Your task to perform on an android device: Open Youtube and go to the subscriptions tab Image 0: 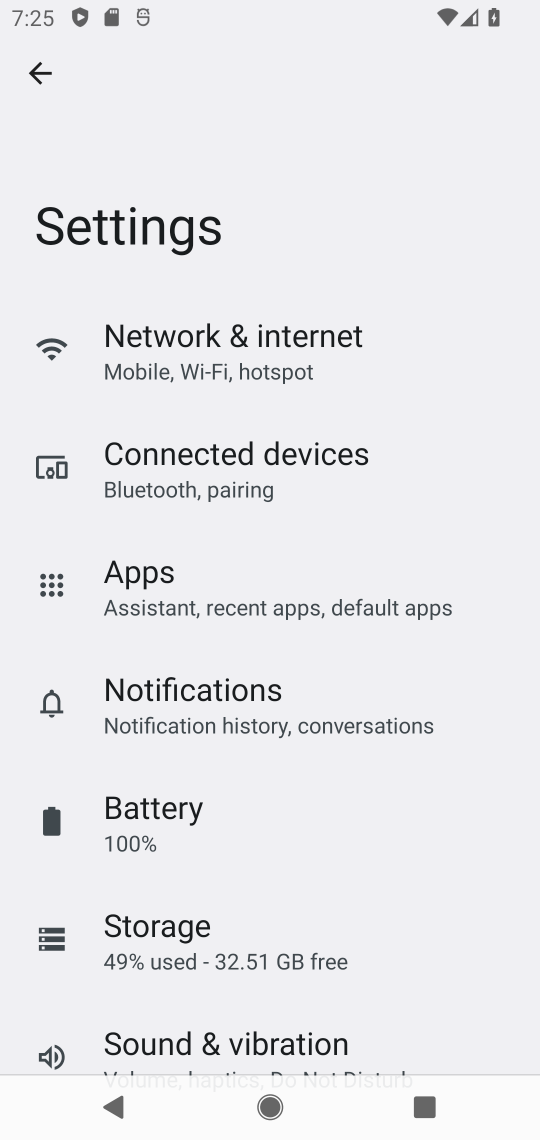
Step 0: press home button
Your task to perform on an android device: Open Youtube and go to the subscriptions tab Image 1: 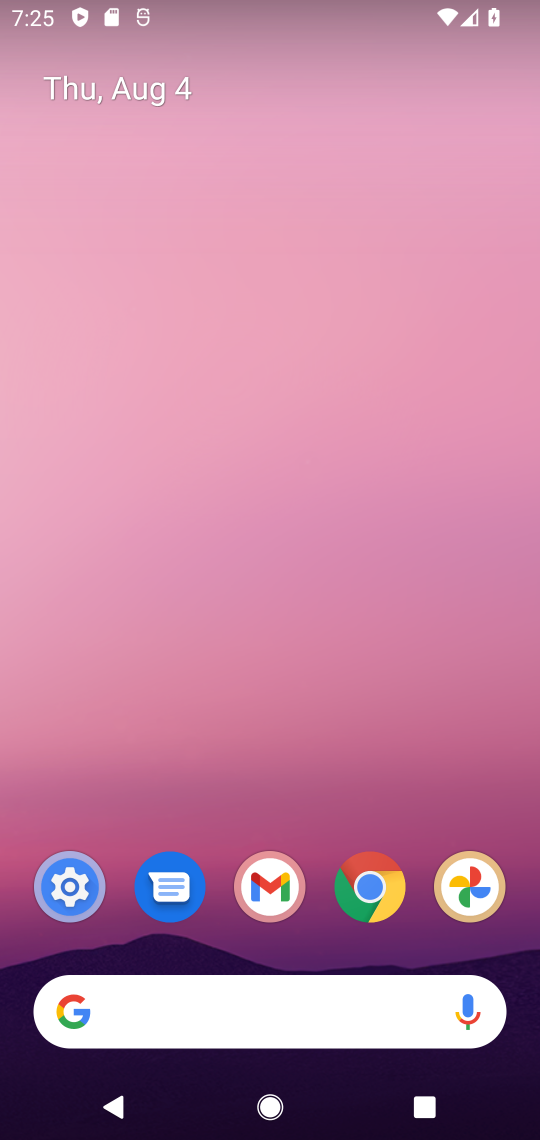
Step 1: drag from (303, 943) to (288, 183)
Your task to perform on an android device: Open Youtube and go to the subscriptions tab Image 2: 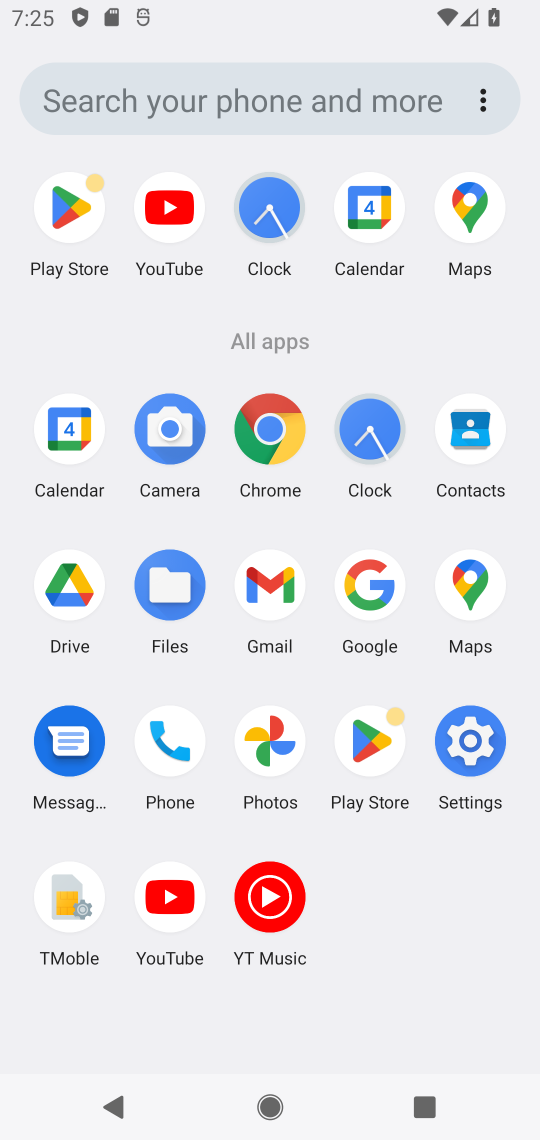
Step 2: click (159, 998)
Your task to perform on an android device: Open Youtube and go to the subscriptions tab Image 3: 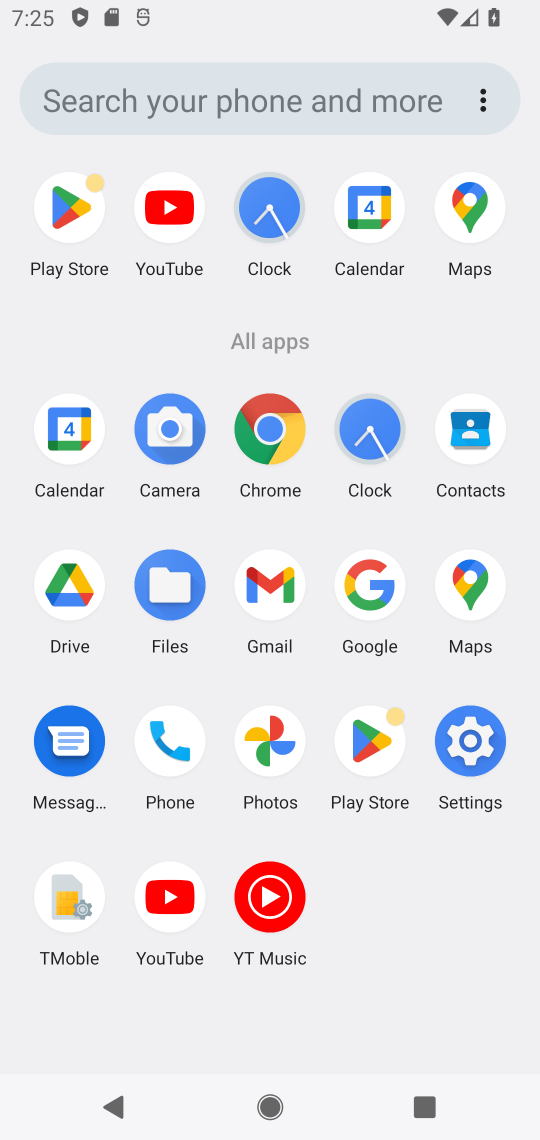
Step 3: click (160, 897)
Your task to perform on an android device: Open Youtube and go to the subscriptions tab Image 4: 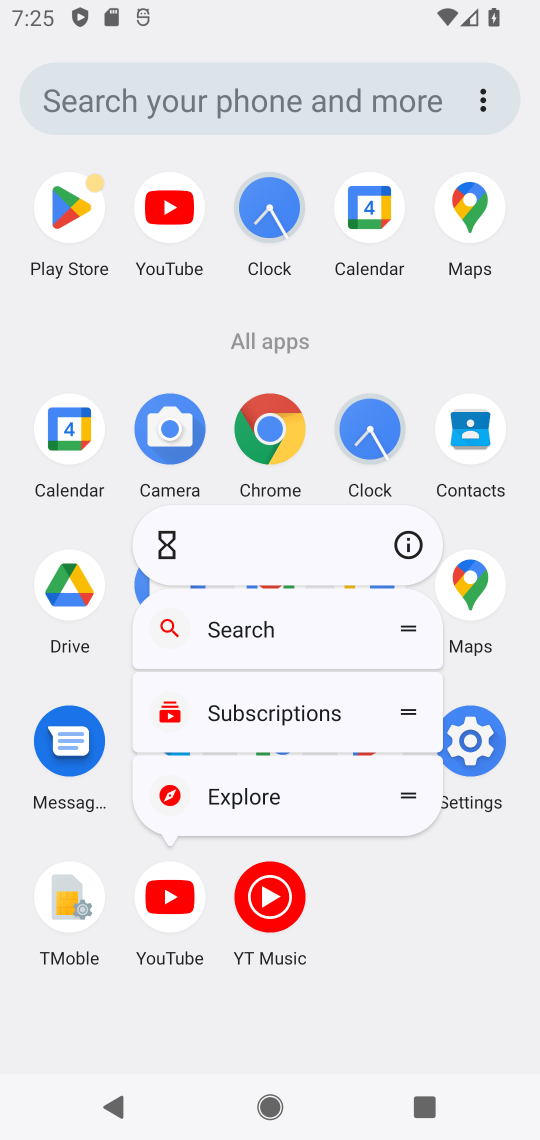
Step 4: click (171, 903)
Your task to perform on an android device: Open Youtube and go to the subscriptions tab Image 5: 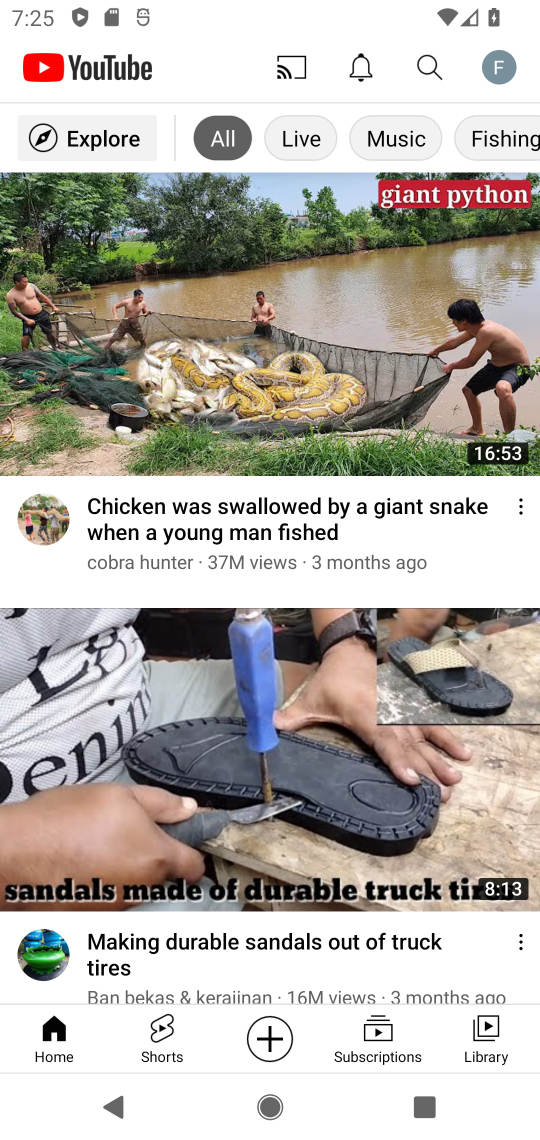
Step 5: click (376, 1026)
Your task to perform on an android device: Open Youtube and go to the subscriptions tab Image 6: 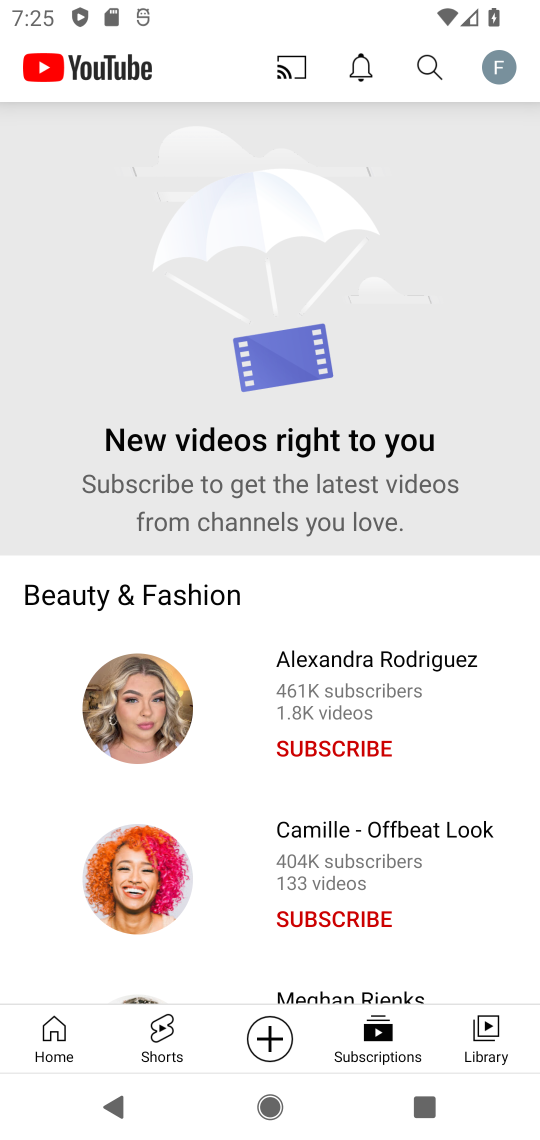
Step 6: task complete